Your task to perform on an android device: check google app version Image 0: 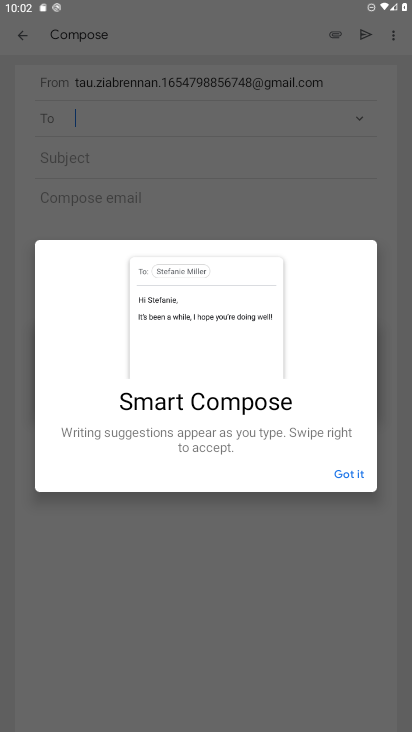
Step 0: press home button
Your task to perform on an android device: check google app version Image 1: 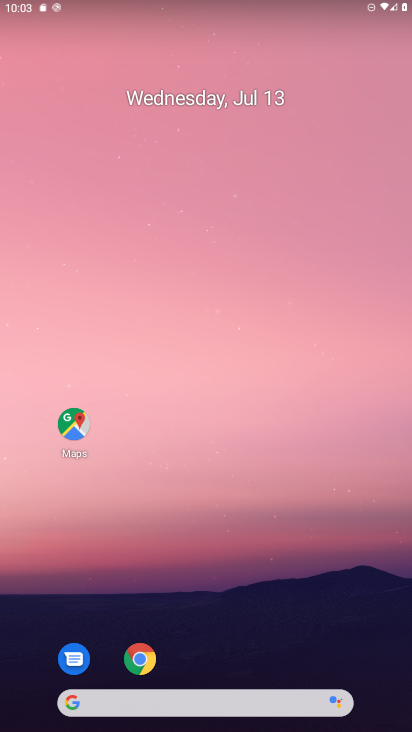
Step 1: drag from (214, 704) to (153, 334)
Your task to perform on an android device: check google app version Image 2: 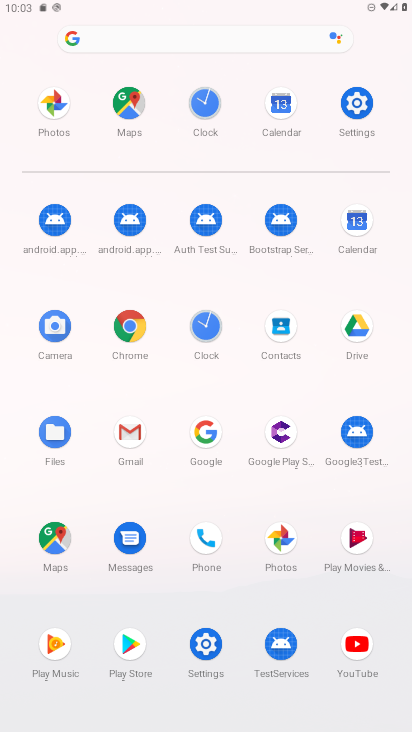
Step 2: click (206, 430)
Your task to perform on an android device: check google app version Image 3: 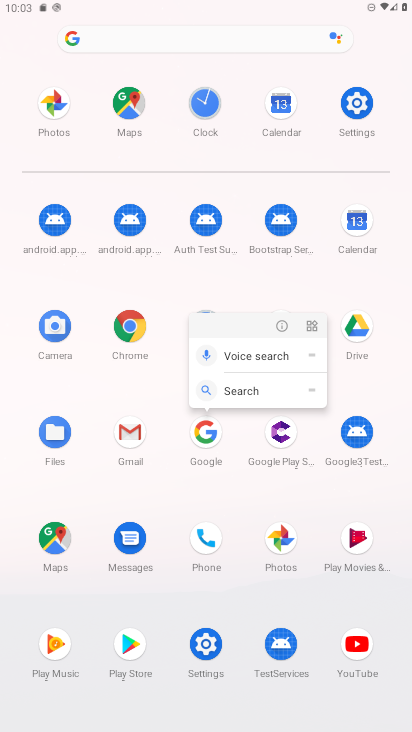
Step 3: click (281, 327)
Your task to perform on an android device: check google app version Image 4: 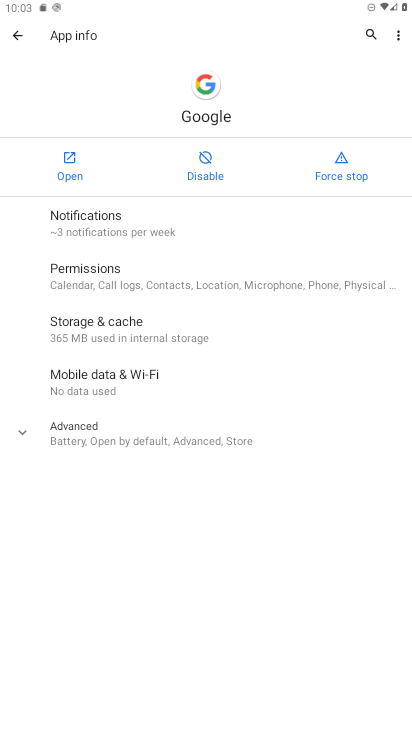
Step 4: click (131, 428)
Your task to perform on an android device: check google app version Image 5: 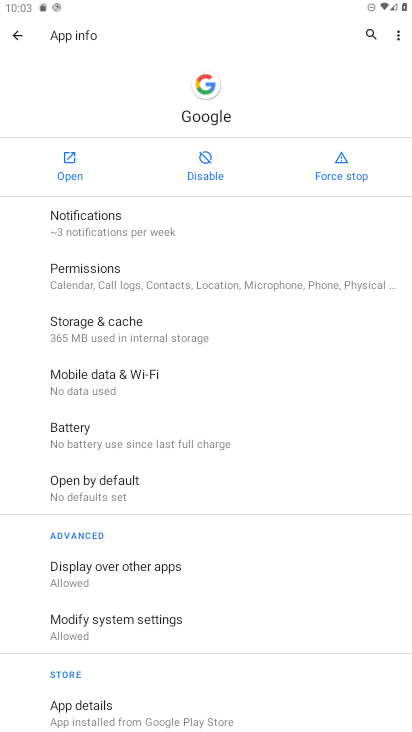
Step 5: drag from (366, 524) to (352, 115)
Your task to perform on an android device: check google app version Image 6: 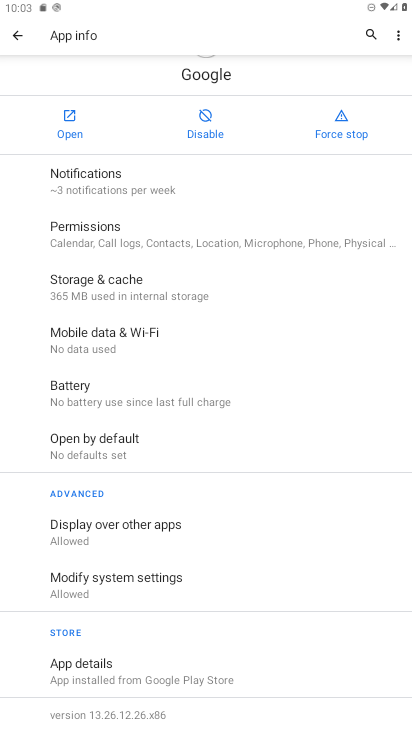
Step 6: click (150, 716)
Your task to perform on an android device: check google app version Image 7: 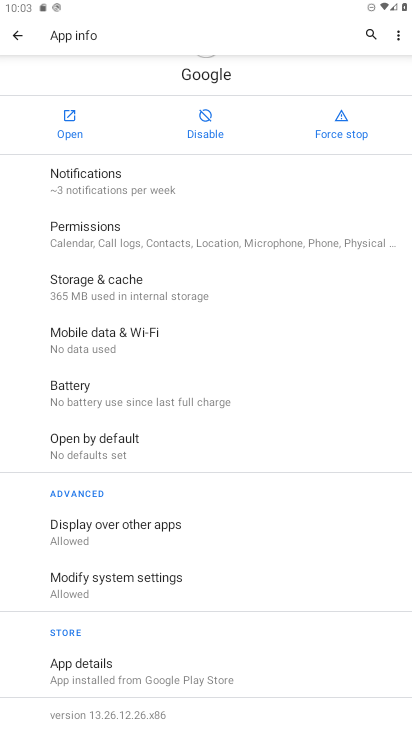
Step 7: task complete